Your task to perform on an android device: Open location settings Image 0: 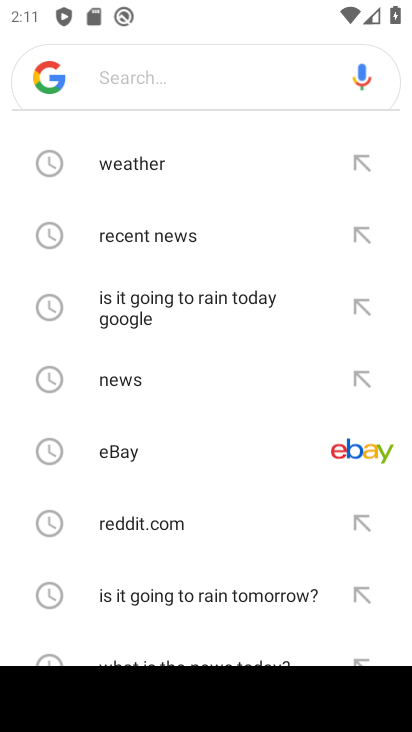
Step 0: press home button
Your task to perform on an android device: Open location settings Image 1: 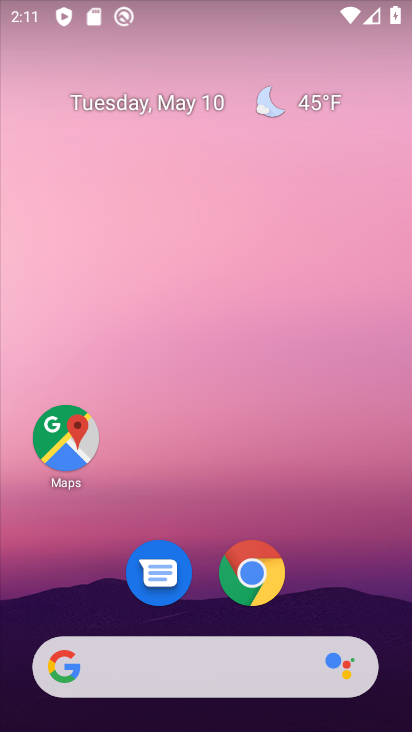
Step 1: drag from (213, 609) to (214, 244)
Your task to perform on an android device: Open location settings Image 2: 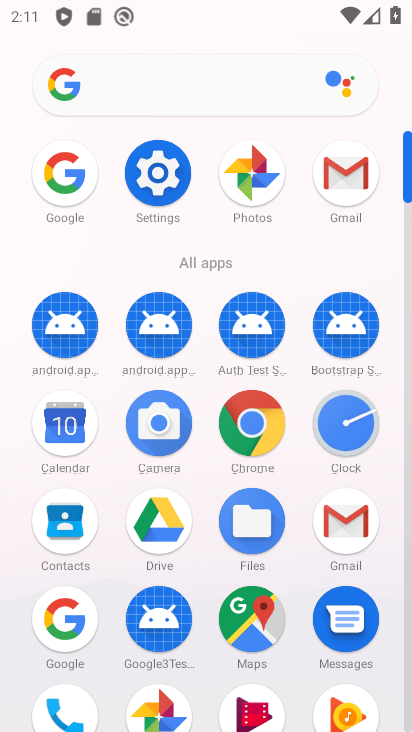
Step 2: click (177, 183)
Your task to perform on an android device: Open location settings Image 3: 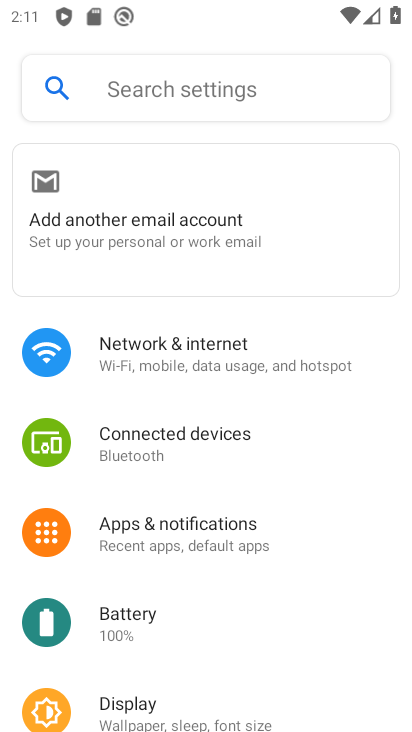
Step 3: drag from (172, 625) to (219, 351)
Your task to perform on an android device: Open location settings Image 4: 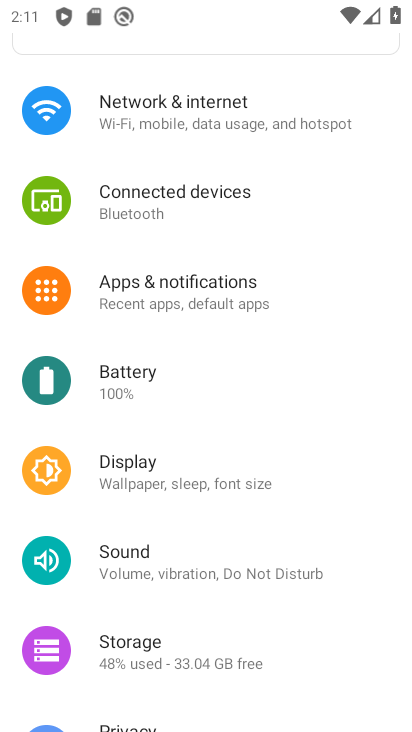
Step 4: drag from (190, 643) to (223, 430)
Your task to perform on an android device: Open location settings Image 5: 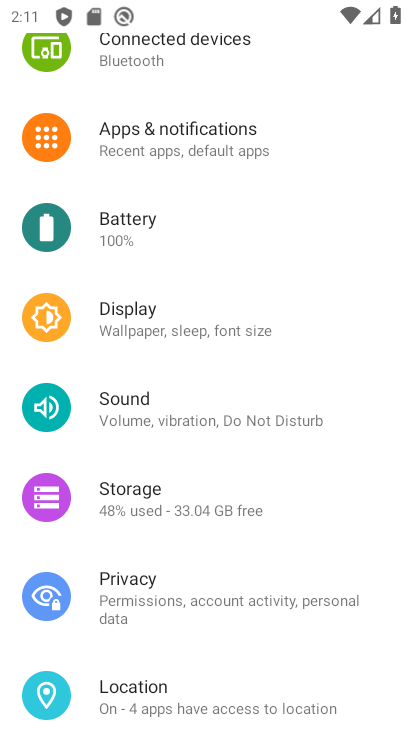
Step 5: click (149, 678)
Your task to perform on an android device: Open location settings Image 6: 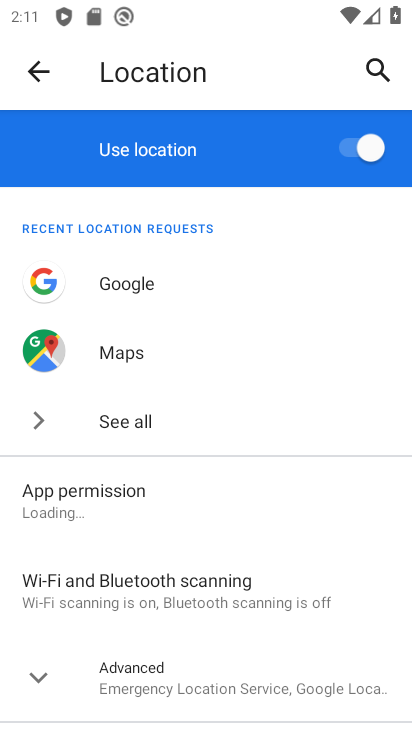
Step 6: task complete